Your task to perform on an android device: stop showing notifications on the lock screen Image 0: 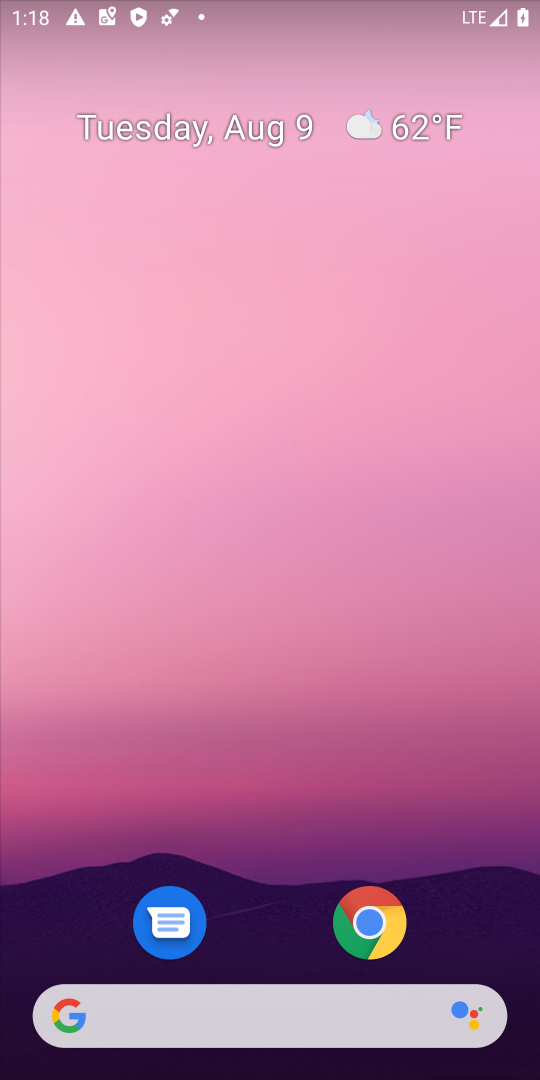
Step 0: drag from (303, 966) to (9, 40)
Your task to perform on an android device: stop showing notifications on the lock screen Image 1: 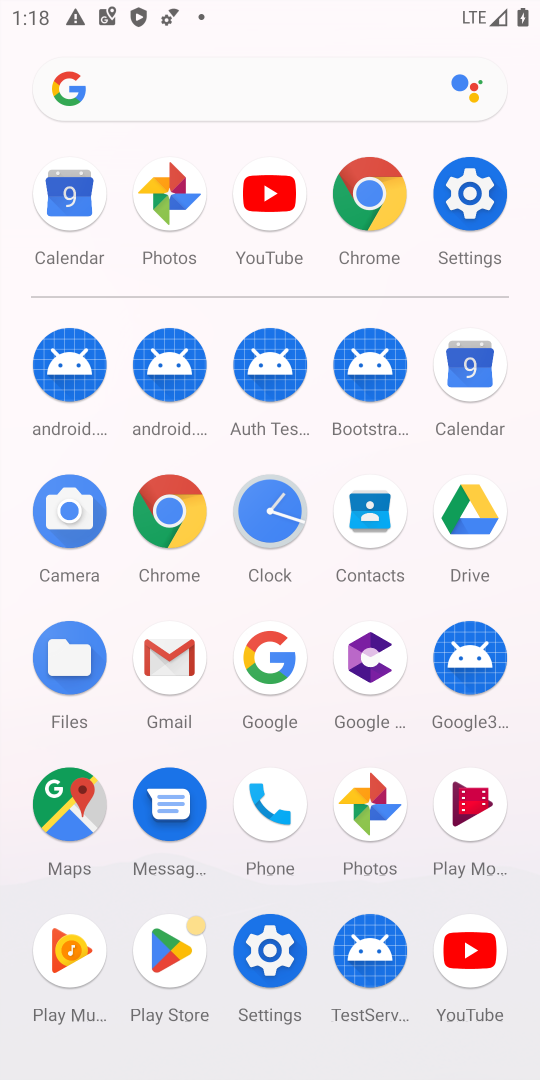
Step 1: click (266, 949)
Your task to perform on an android device: stop showing notifications on the lock screen Image 2: 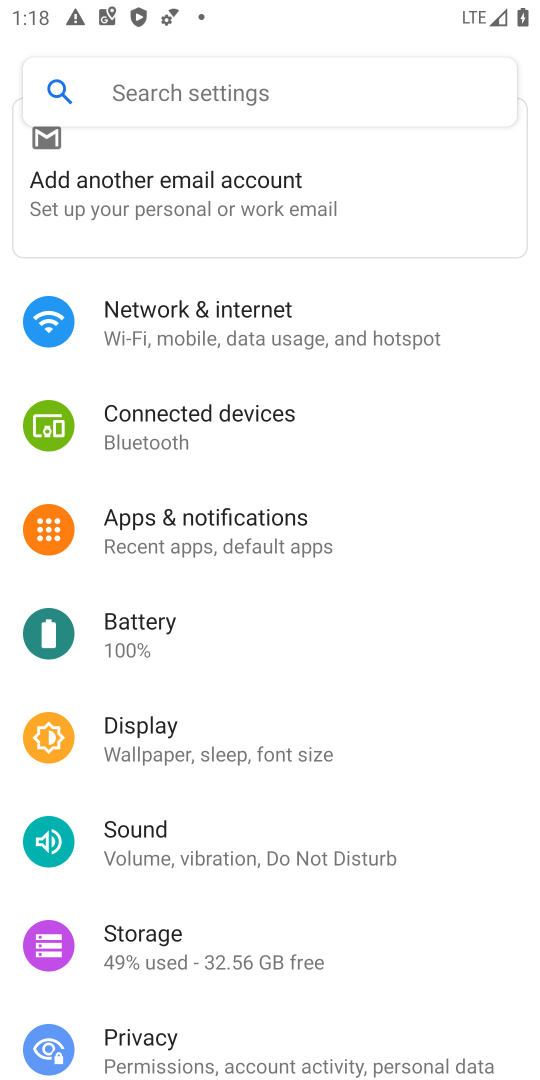
Step 2: click (197, 494)
Your task to perform on an android device: stop showing notifications on the lock screen Image 3: 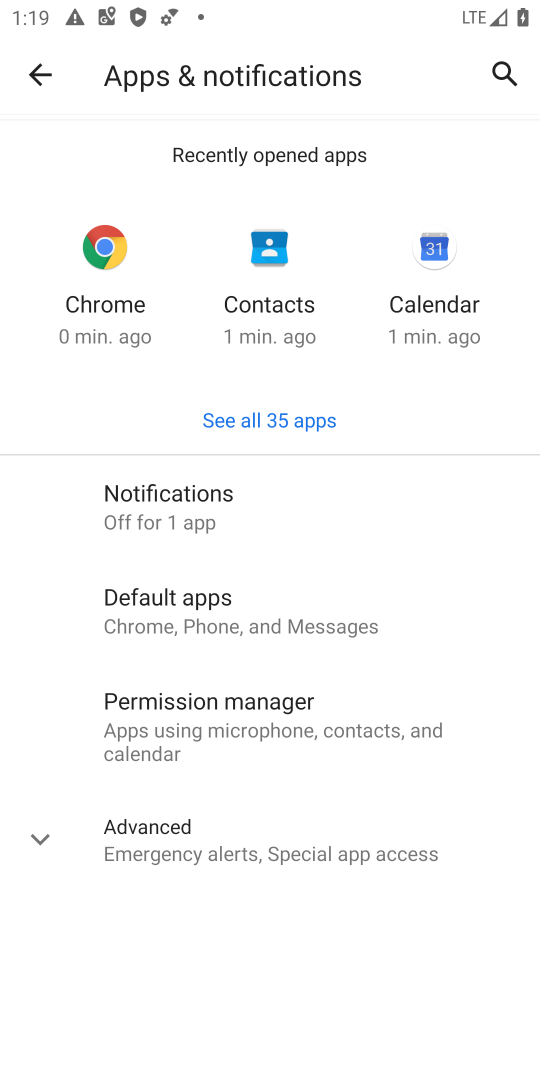
Step 3: click (155, 520)
Your task to perform on an android device: stop showing notifications on the lock screen Image 4: 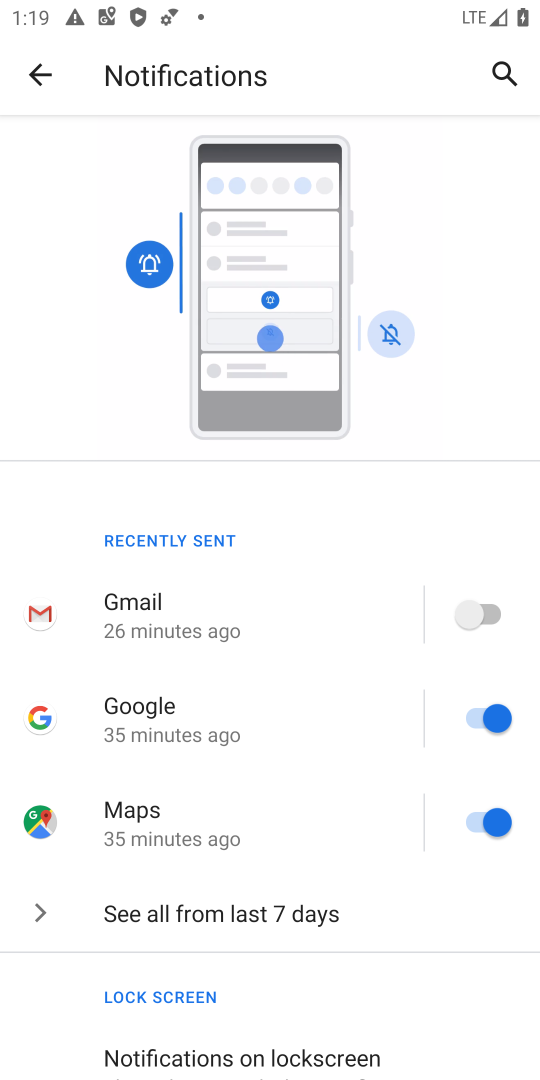
Step 4: click (201, 1047)
Your task to perform on an android device: stop showing notifications on the lock screen Image 5: 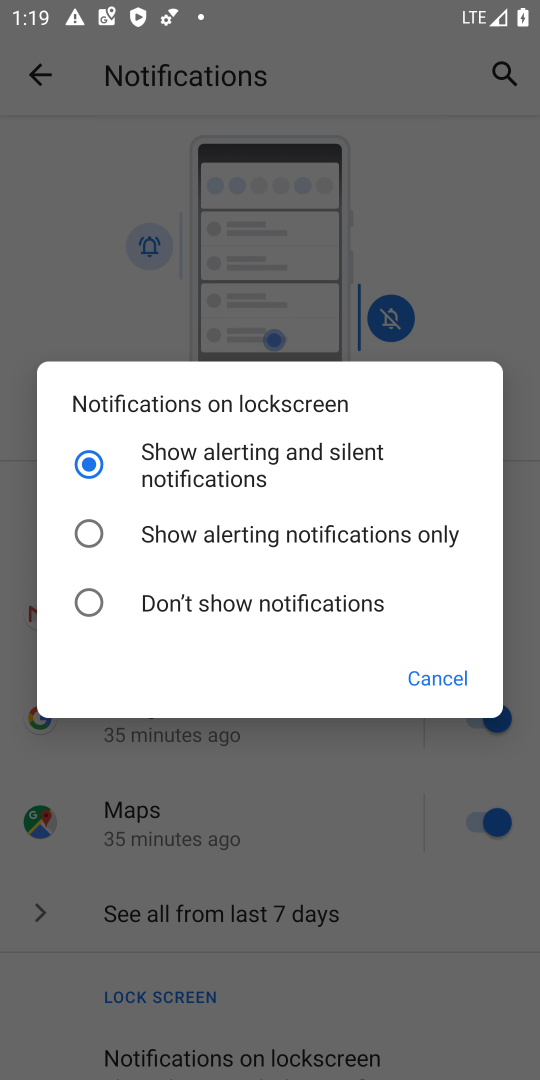
Step 5: click (101, 602)
Your task to perform on an android device: stop showing notifications on the lock screen Image 6: 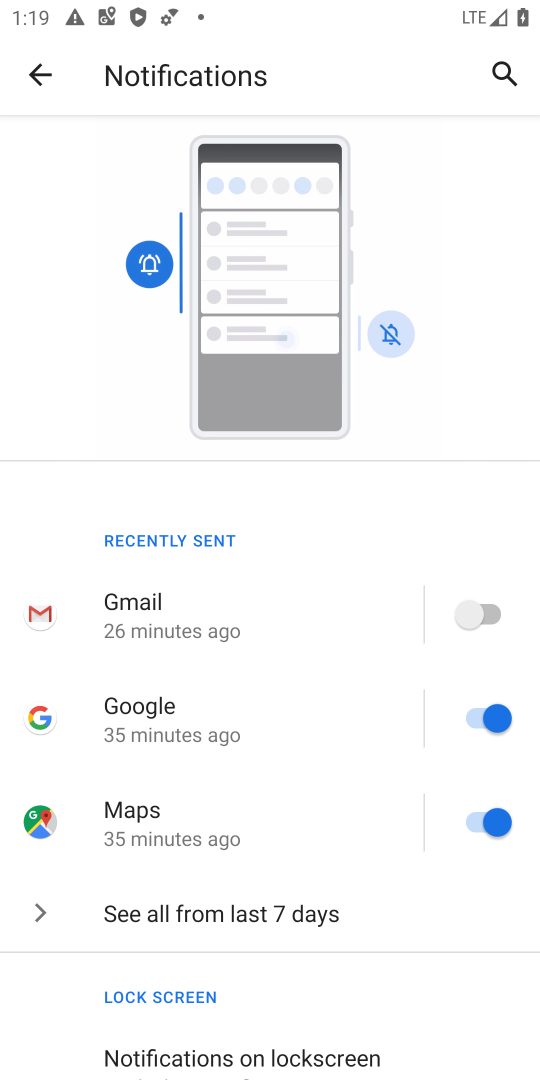
Step 6: task complete